Your task to perform on an android device: Clear all items from cart on newegg.com. Search for "logitech g pro" on newegg.com, select the first entry, add it to the cart, then select checkout. Image 0: 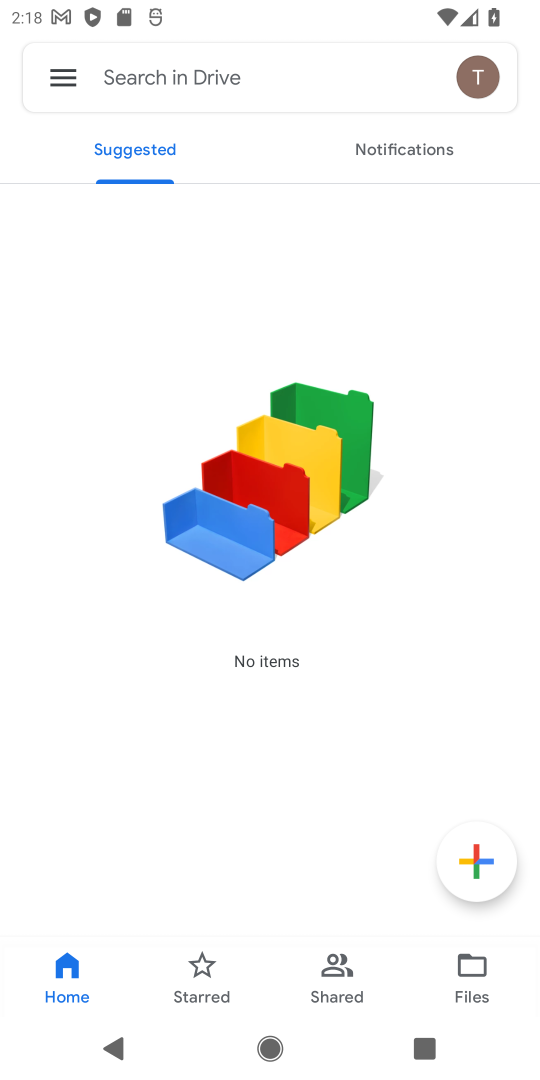
Step 0: task complete